Your task to perform on an android device: turn notification dots off Image 0: 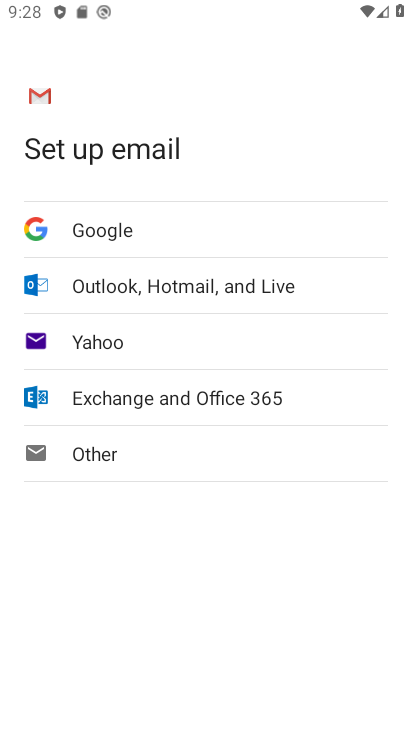
Step 0: press home button
Your task to perform on an android device: turn notification dots off Image 1: 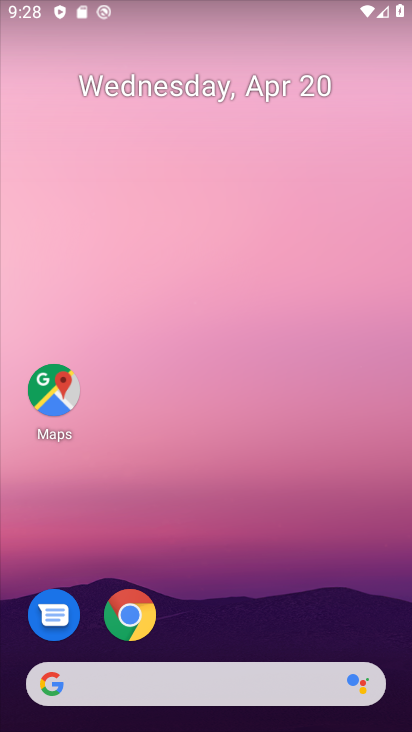
Step 1: drag from (279, 622) to (265, 8)
Your task to perform on an android device: turn notification dots off Image 2: 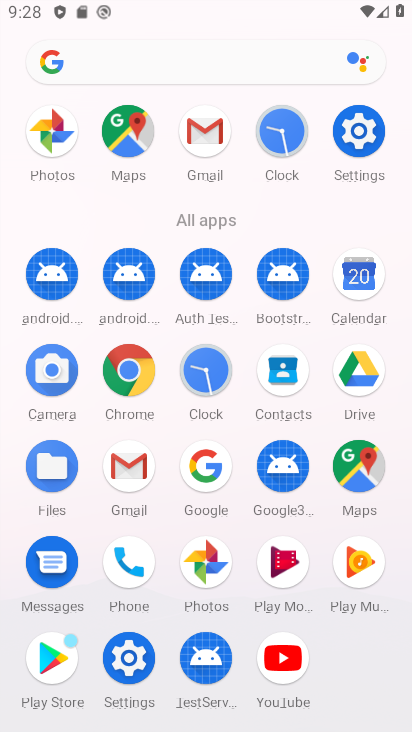
Step 2: click (361, 126)
Your task to perform on an android device: turn notification dots off Image 3: 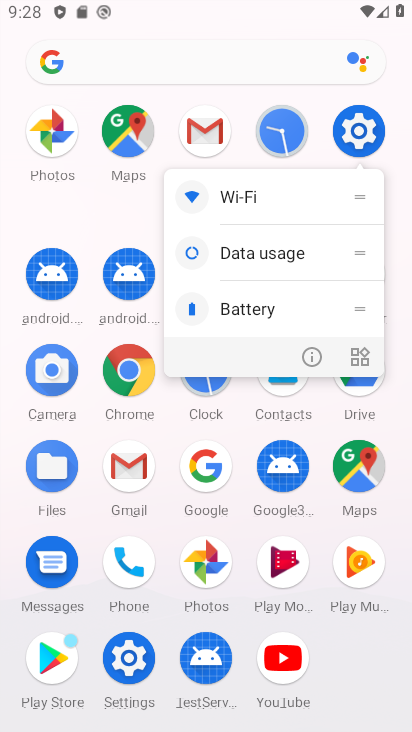
Step 3: click (370, 116)
Your task to perform on an android device: turn notification dots off Image 4: 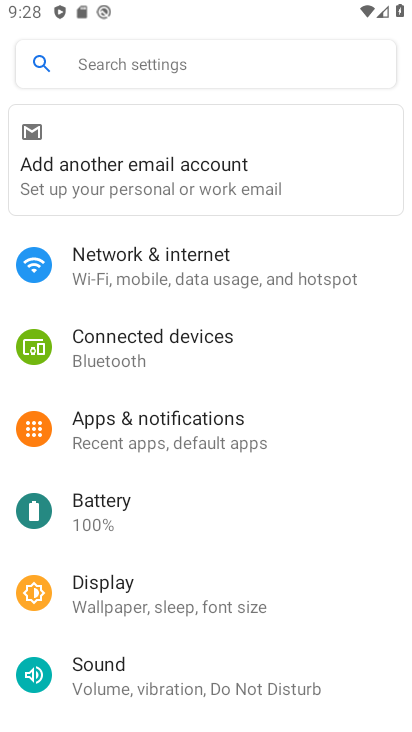
Step 4: click (216, 441)
Your task to perform on an android device: turn notification dots off Image 5: 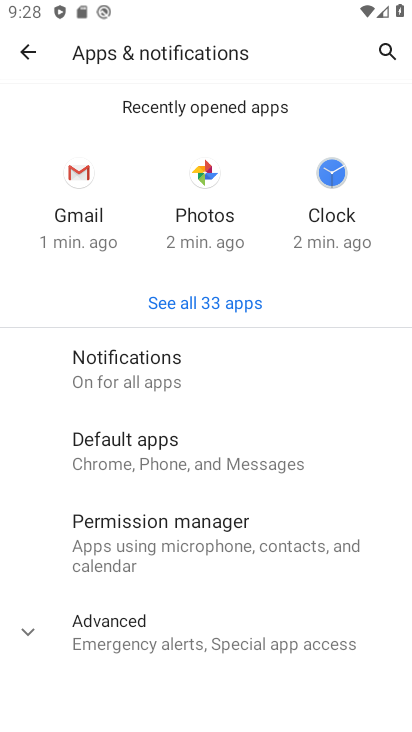
Step 5: click (211, 375)
Your task to perform on an android device: turn notification dots off Image 6: 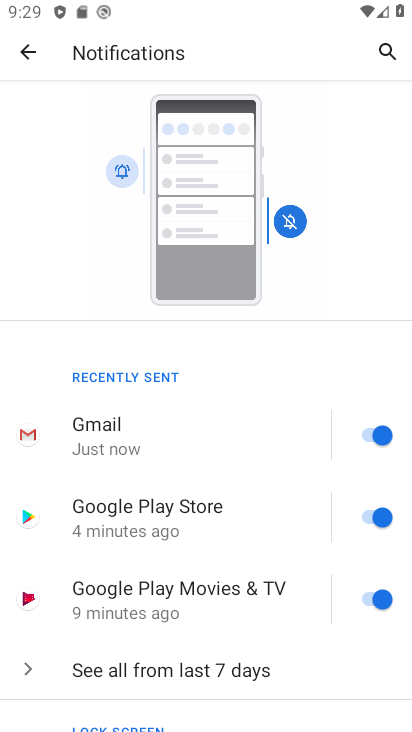
Step 6: drag from (193, 716) to (316, 177)
Your task to perform on an android device: turn notification dots off Image 7: 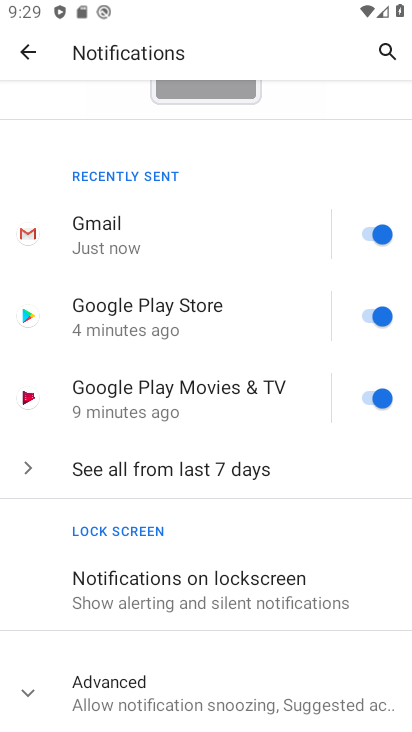
Step 7: drag from (116, 624) to (151, 286)
Your task to perform on an android device: turn notification dots off Image 8: 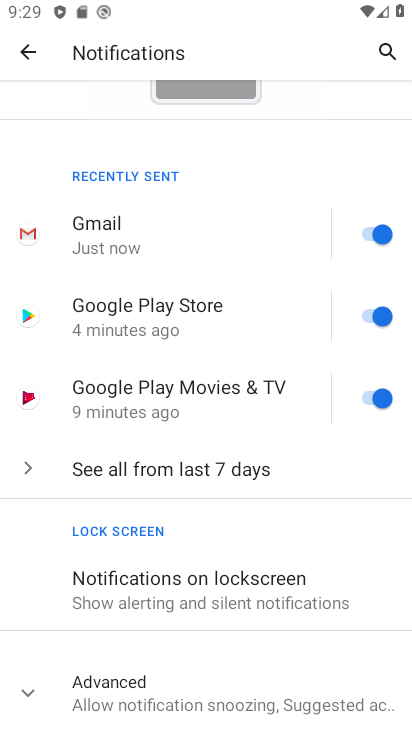
Step 8: click (150, 686)
Your task to perform on an android device: turn notification dots off Image 9: 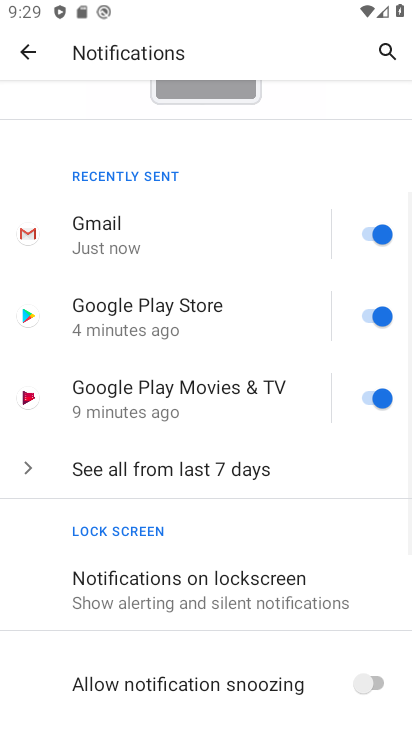
Step 9: drag from (160, 686) to (246, 255)
Your task to perform on an android device: turn notification dots off Image 10: 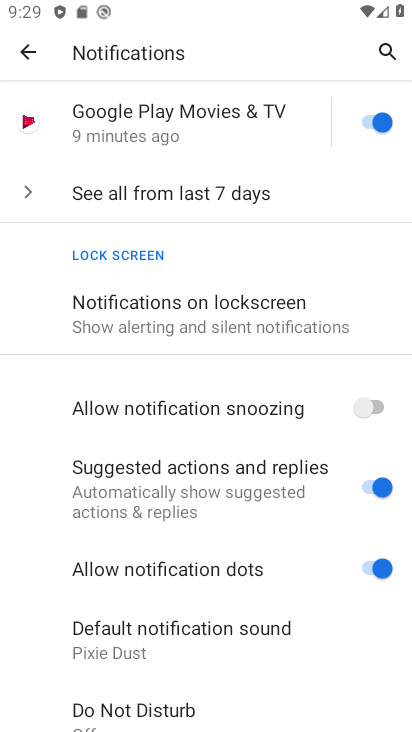
Step 10: click (382, 555)
Your task to perform on an android device: turn notification dots off Image 11: 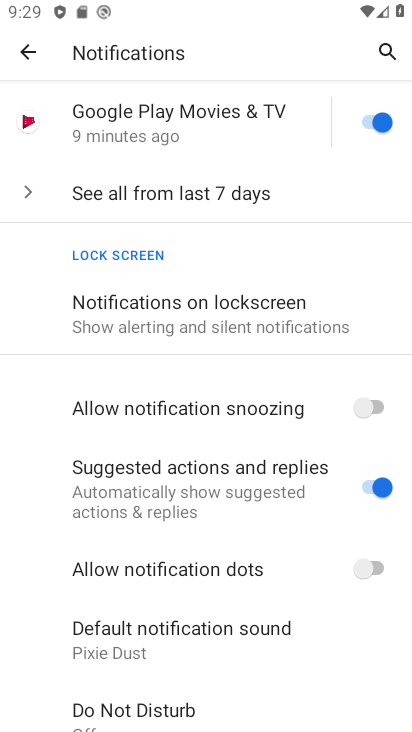
Step 11: task complete